Your task to perform on an android device: Open accessibility settings Image 0: 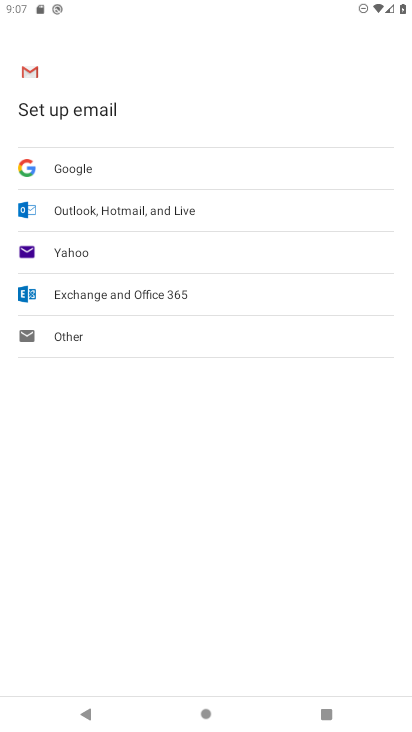
Step 0: press home button
Your task to perform on an android device: Open accessibility settings Image 1: 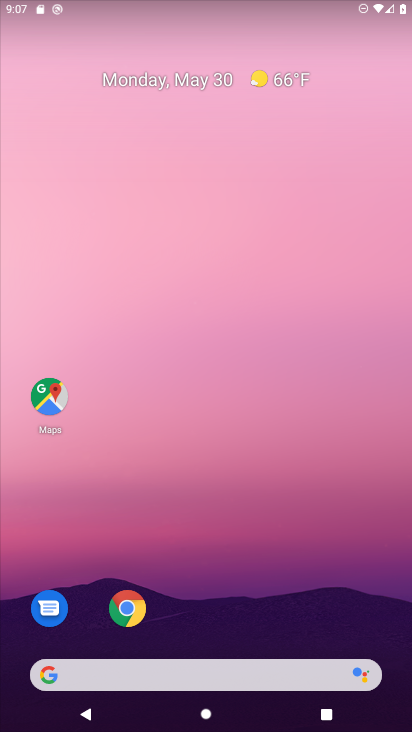
Step 1: drag from (219, 704) to (213, 128)
Your task to perform on an android device: Open accessibility settings Image 2: 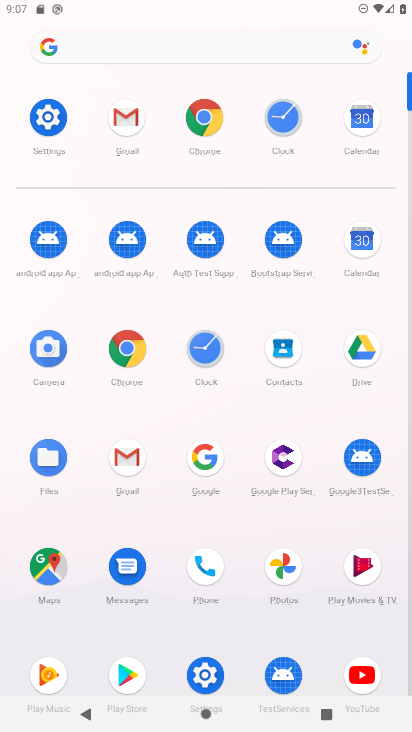
Step 2: click (42, 106)
Your task to perform on an android device: Open accessibility settings Image 3: 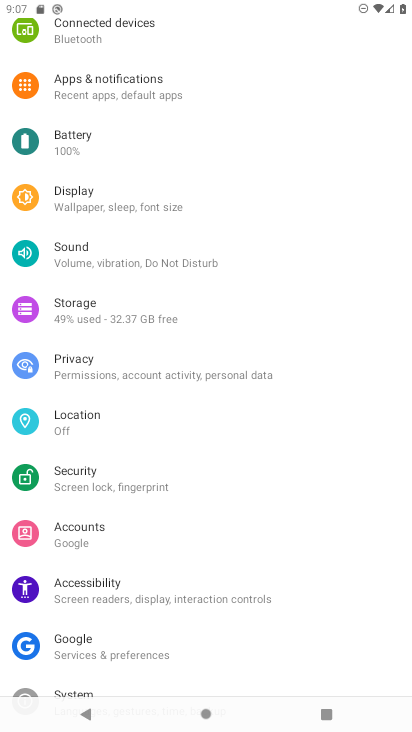
Step 3: click (120, 600)
Your task to perform on an android device: Open accessibility settings Image 4: 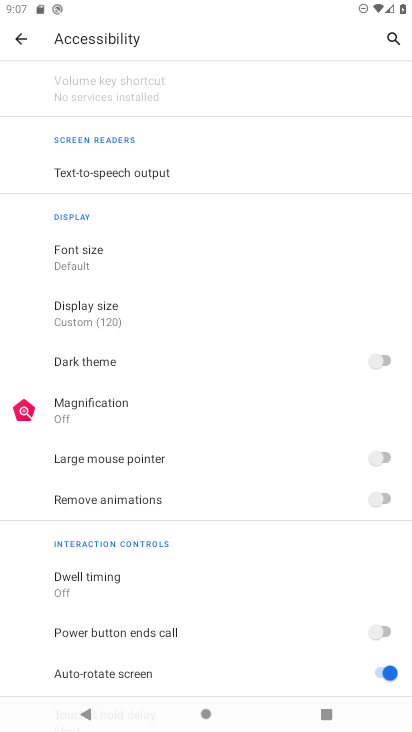
Step 4: task complete